Your task to perform on an android device: change timer sound Image 0: 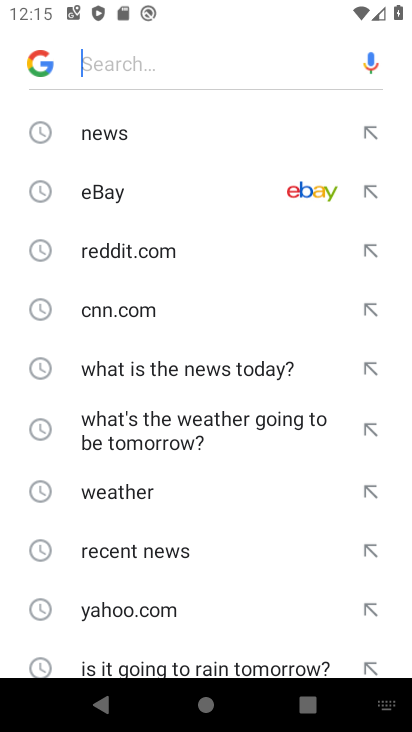
Step 0: press home button
Your task to perform on an android device: change timer sound Image 1: 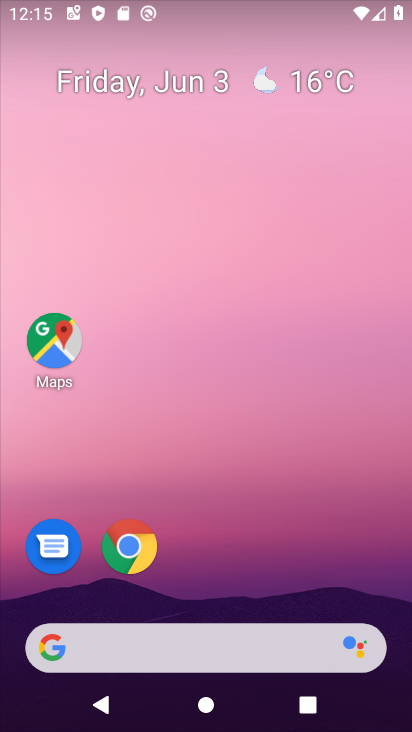
Step 1: drag from (299, 533) to (215, 24)
Your task to perform on an android device: change timer sound Image 2: 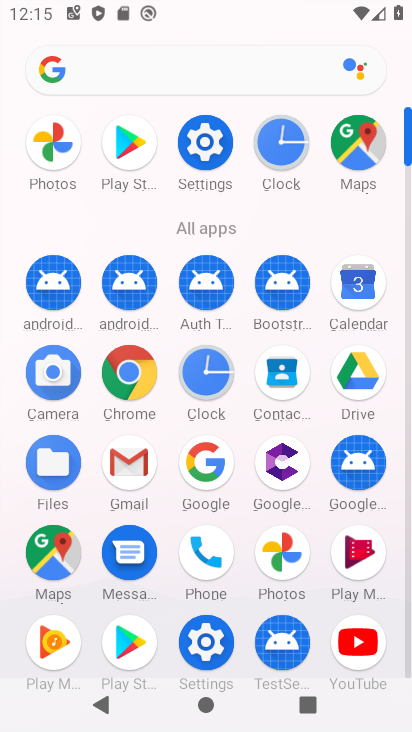
Step 2: click (280, 152)
Your task to perform on an android device: change timer sound Image 3: 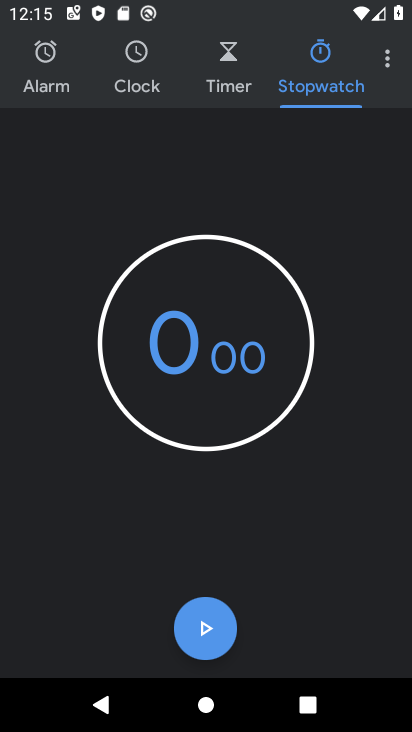
Step 3: click (391, 55)
Your task to perform on an android device: change timer sound Image 4: 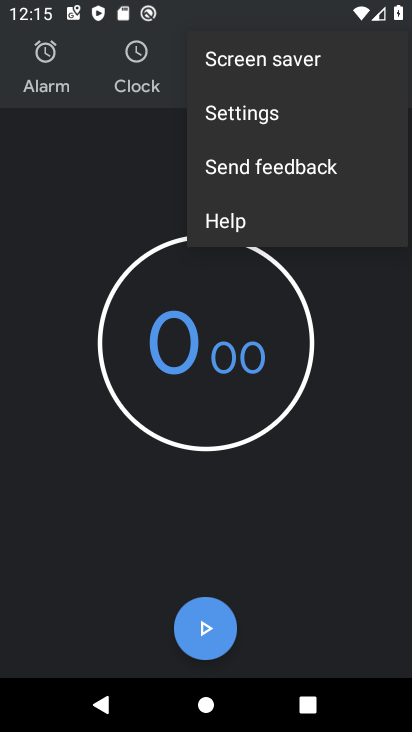
Step 4: click (268, 119)
Your task to perform on an android device: change timer sound Image 5: 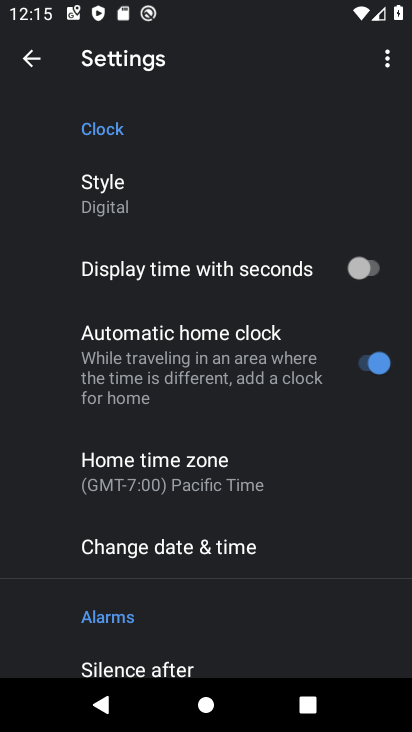
Step 5: drag from (297, 522) to (236, 213)
Your task to perform on an android device: change timer sound Image 6: 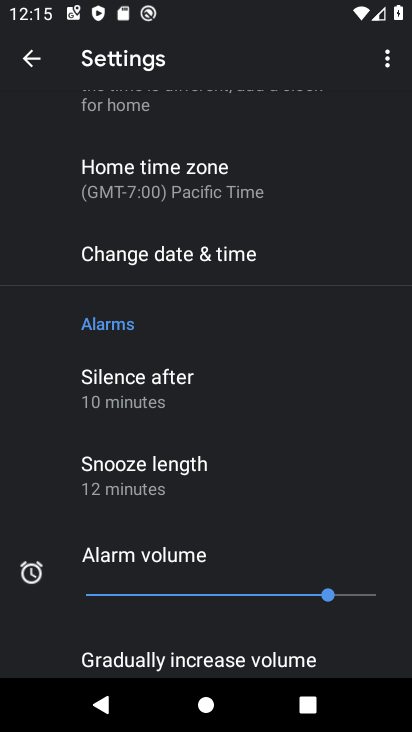
Step 6: drag from (218, 457) to (212, 153)
Your task to perform on an android device: change timer sound Image 7: 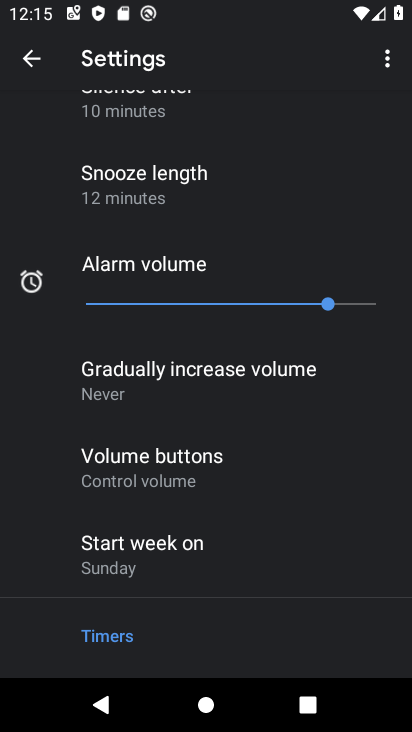
Step 7: drag from (247, 530) to (226, 259)
Your task to perform on an android device: change timer sound Image 8: 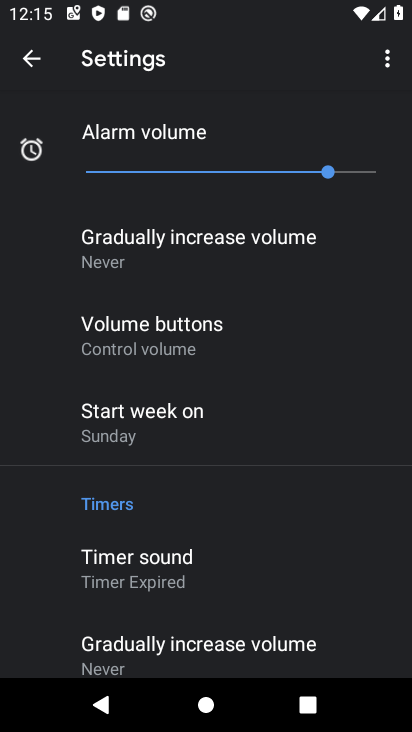
Step 8: click (159, 556)
Your task to perform on an android device: change timer sound Image 9: 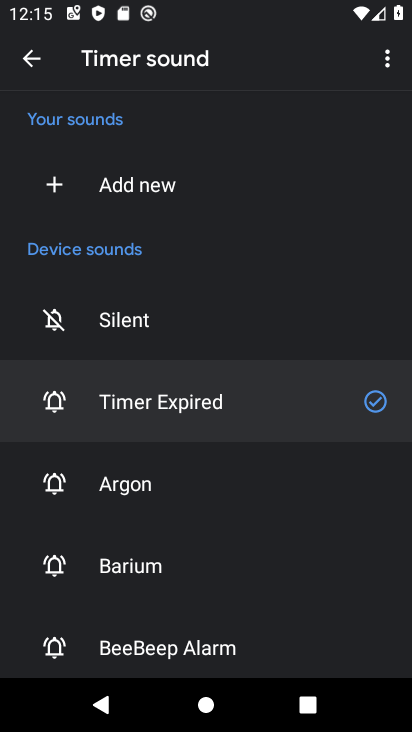
Step 9: click (123, 486)
Your task to perform on an android device: change timer sound Image 10: 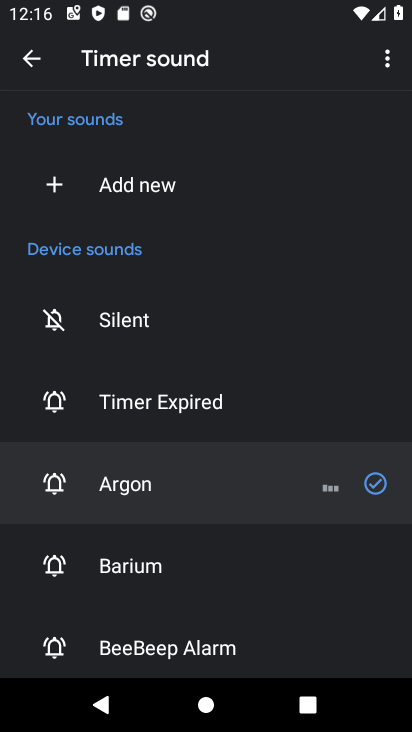
Step 10: task complete